Your task to perform on an android device: delete a single message in the gmail app Image 0: 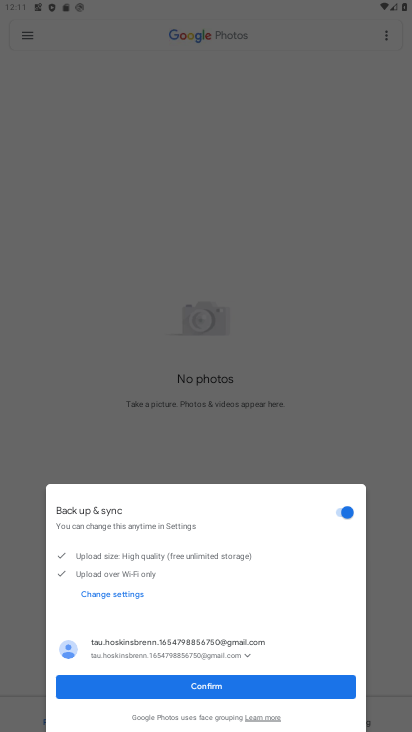
Step 0: click (183, 694)
Your task to perform on an android device: delete a single message in the gmail app Image 1: 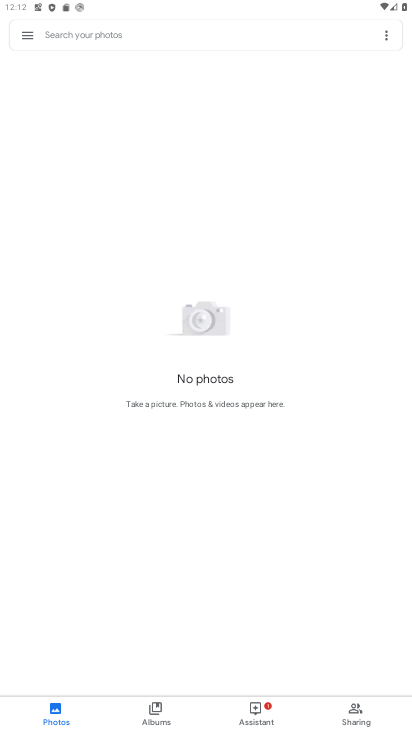
Step 1: press home button
Your task to perform on an android device: delete a single message in the gmail app Image 2: 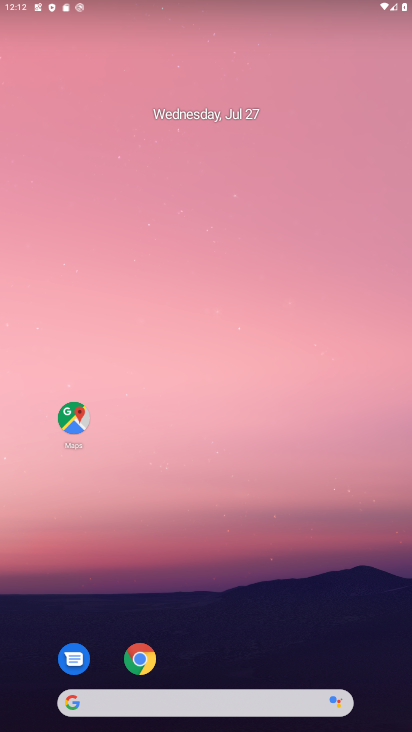
Step 2: drag from (252, 548) to (286, 236)
Your task to perform on an android device: delete a single message in the gmail app Image 3: 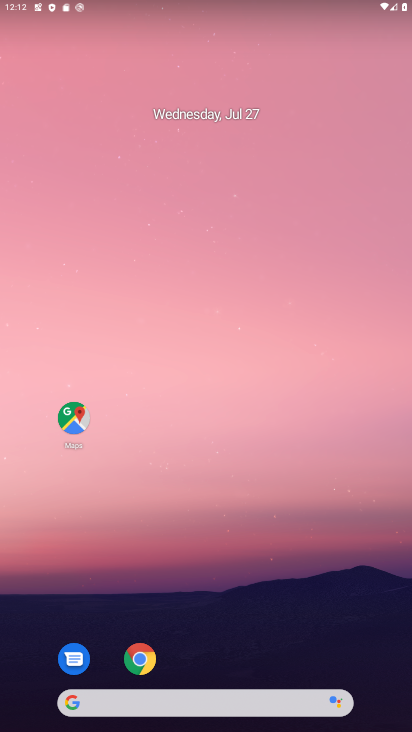
Step 3: drag from (219, 555) to (254, 164)
Your task to perform on an android device: delete a single message in the gmail app Image 4: 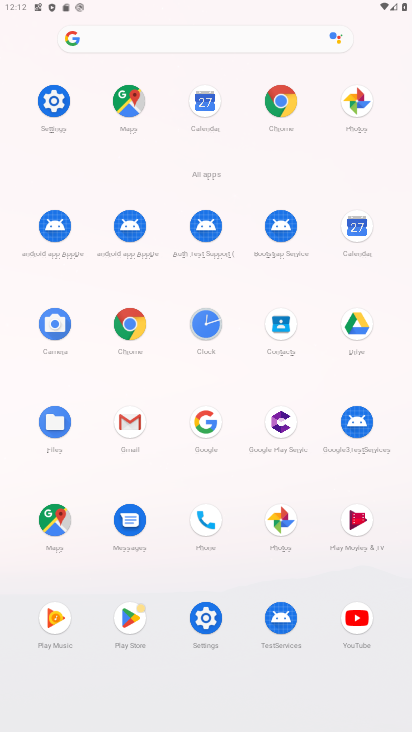
Step 4: click (132, 420)
Your task to perform on an android device: delete a single message in the gmail app Image 5: 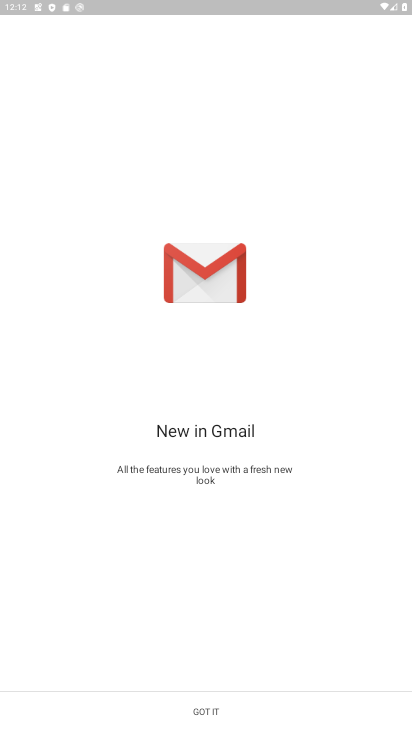
Step 5: click (209, 701)
Your task to perform on an android device: delete a single message in the gmail app Image 6: 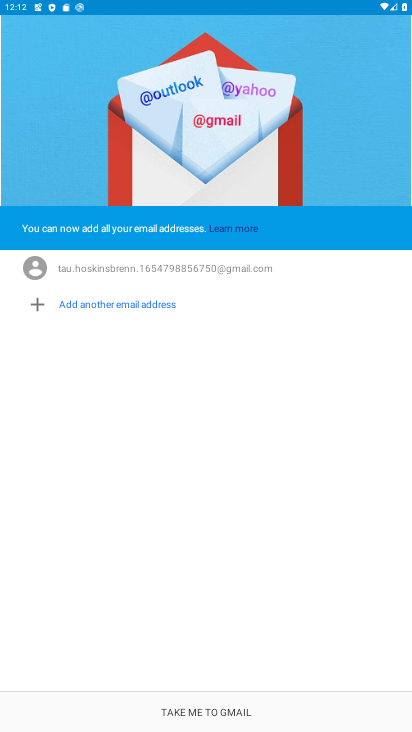
Step 6: click (209, 717)
Your task to perform on an android device: delete a single message in the gmail app Image 7: 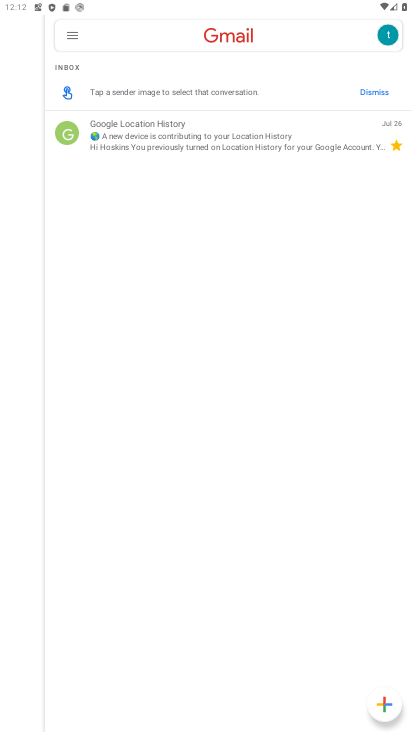
Step 7: task complete